Your task to perform on an android device: turn off wifi Image 0: 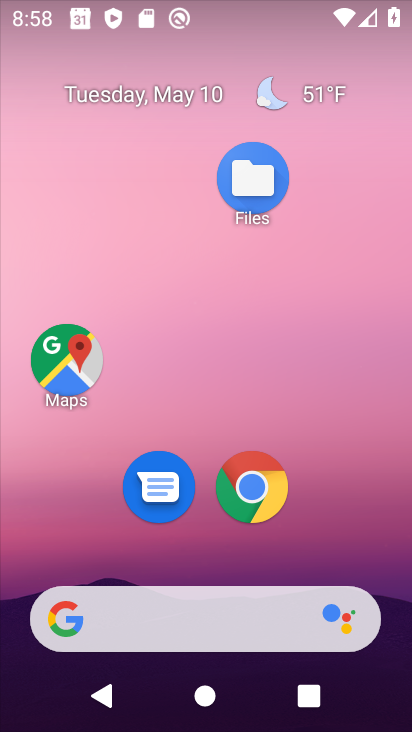
Step 0: drag from (207, 539) to (178, 62)
Your task to perform on an android device: turn off wifi Image 1: 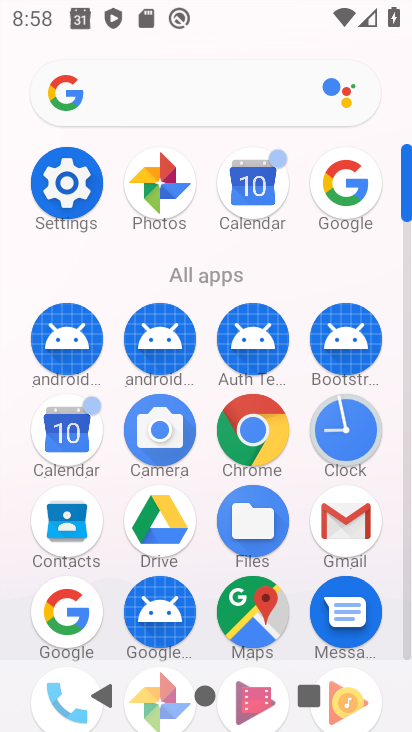
Step 1: click (73, 176)
Your task to perform on an android device: turn off wifi Image 2: 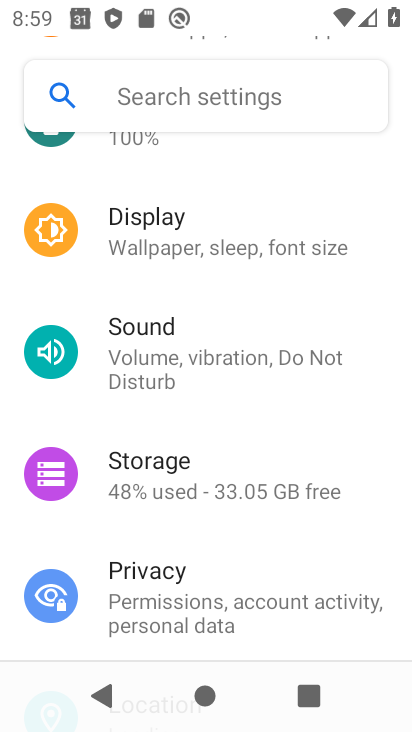
Step 2: drag from (230, 209) to (302, 712)
Your task to perform on an android device: turn off wifi Image 3: 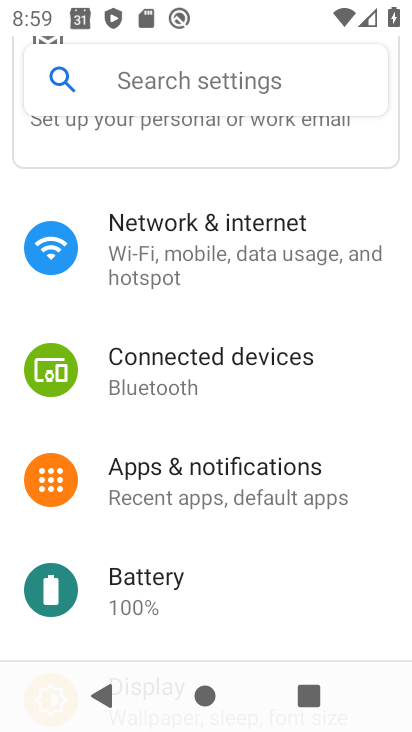
Step 3: click (142, 284)
Your task to perform on an android device: turn off wifi Image 4: 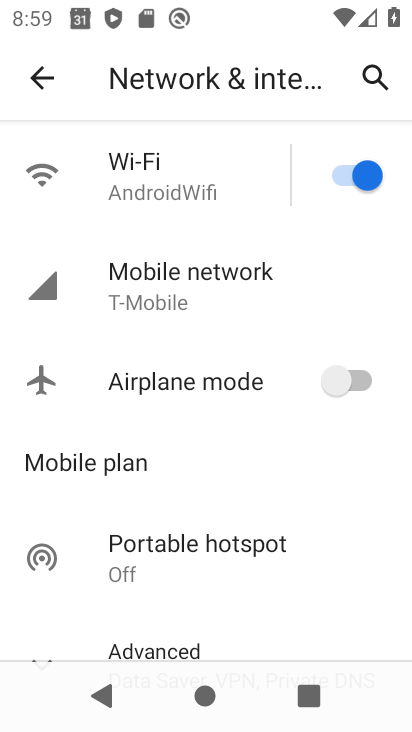
Step 4: click (373, 176)
Your task to perform on an android device: turn off wifi Image 5: 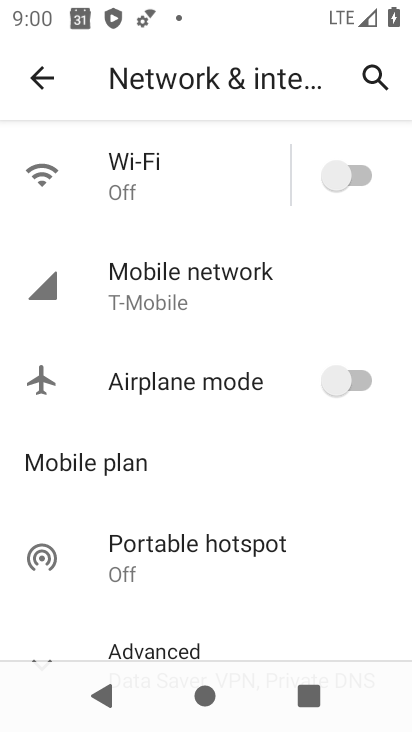
Step 5: task complete